Your task to perform on an android device: clear history in the chrome app Image 0: 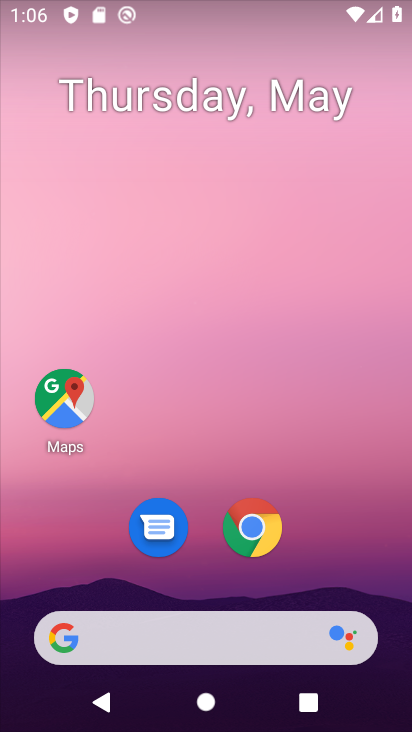
Step 0: press home button
Your task to perform on an android device: clear history in the chrome app Image 1: 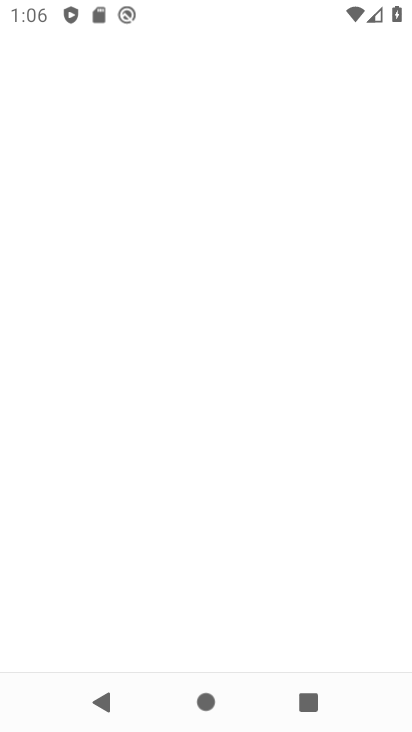
Step 1: drag from (390, 538) to (282, 133)
Your task to perform on an android device: clear history in the chrome app Image 2: 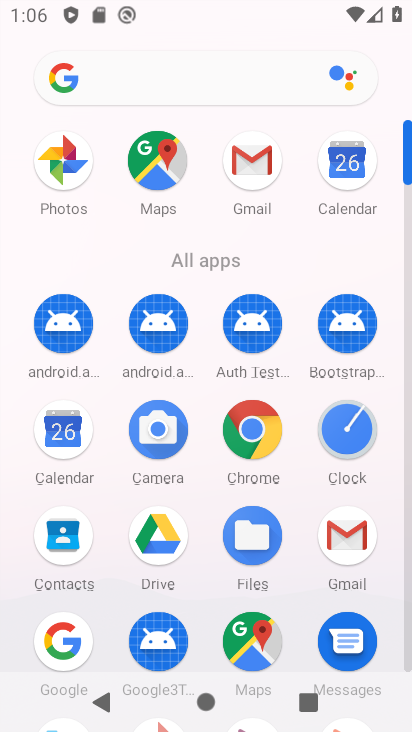
Step 2: click (261, 461)
Your task to perform on an android device: clear history in the chrome app Image 3: 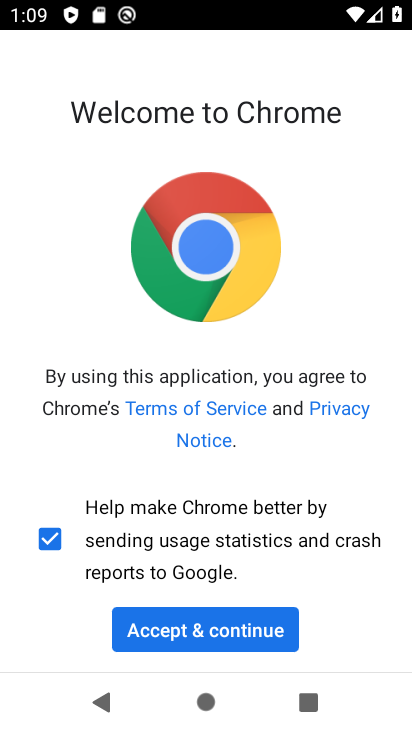
Step 3: click (234, 627)
Your task to perform on an android device: clear history in the chrome app Image 4: 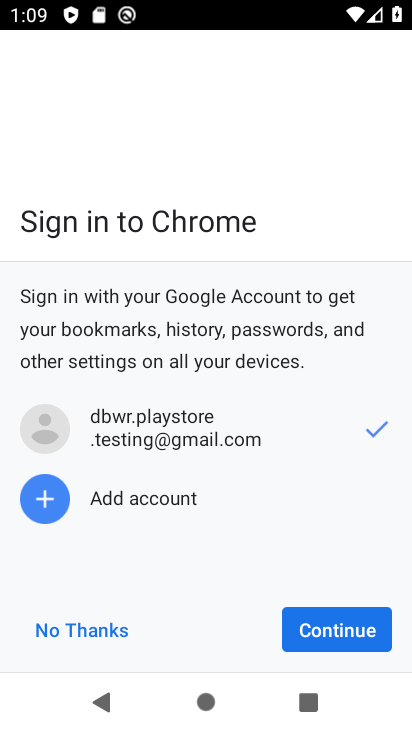
Step 4: click (363, 642)
Your task to perform on an android device: clear history in the chrome app Image 5: 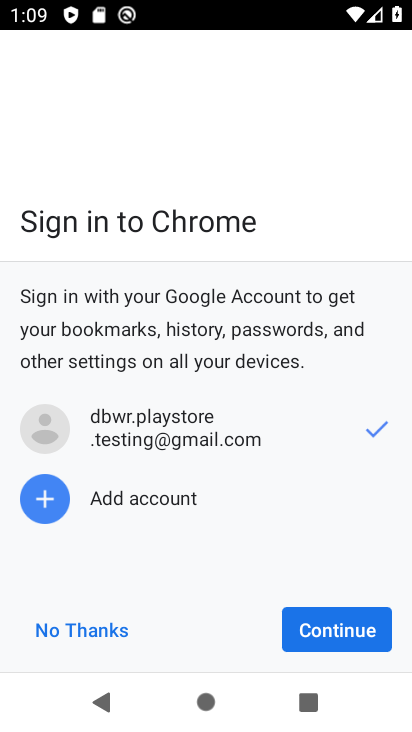
Step 5: click (363, 642)
Your task to perform on an android device: clear history in the chrome app Image 6: 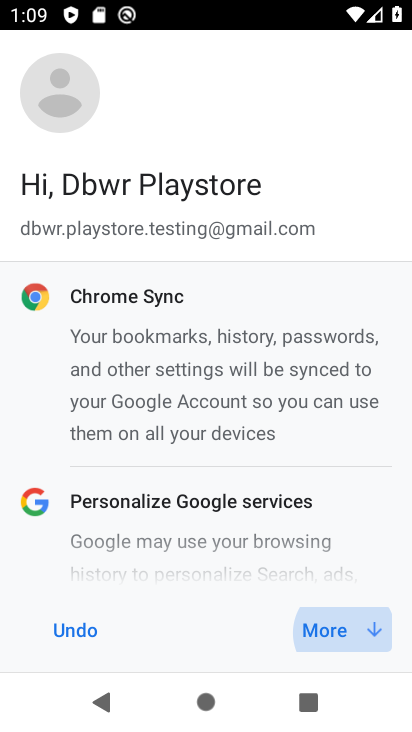
Step 6: click (363, 642)
Your task to perform on an android device: clear history in the chrome app Image 7: 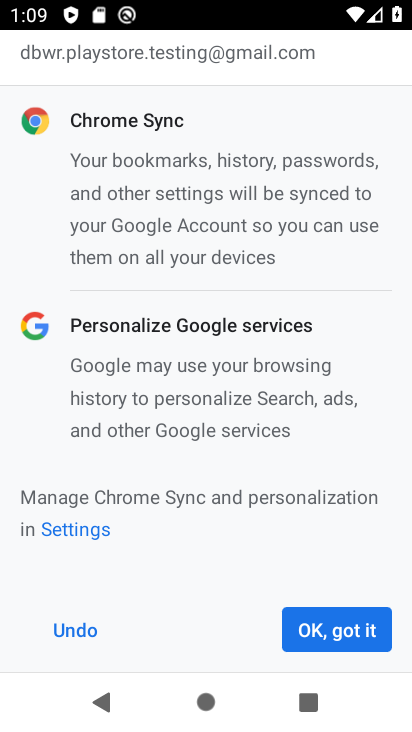
Step 7: click (353, 640)
Your task to perform on an android device: clear history in the chrome app Image 8: 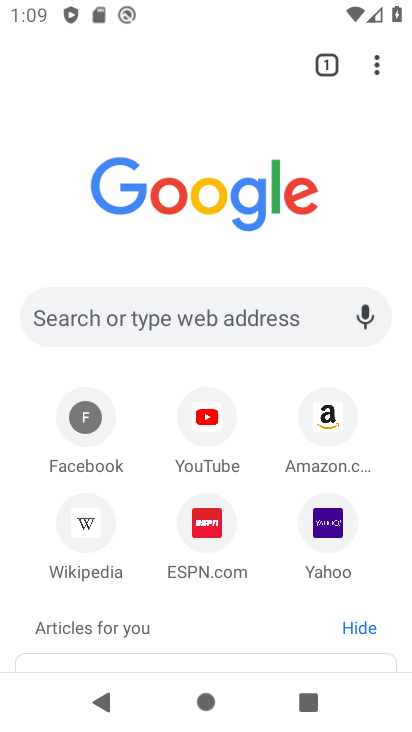
Step 8: drag from (371, 62) to (152, 562)
Your task to perform on an android device: clear history in the chrome app Image 9: 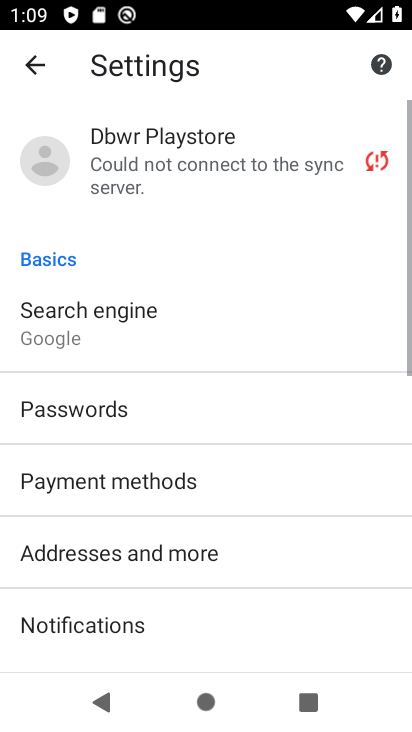
Step 9: drag from (173, 616) to (179, 233)
Your task to perform on an android device: clear history in the chrome app Image 10: 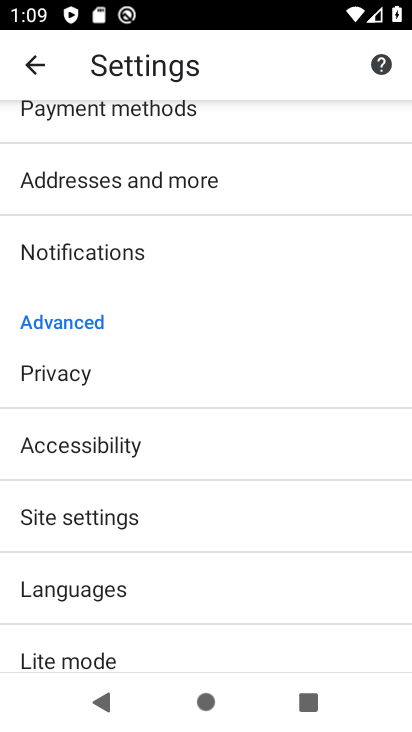
Step 10: click (12, 65)
Your task to perform on an android device: clear history in the chrome app Image 11: 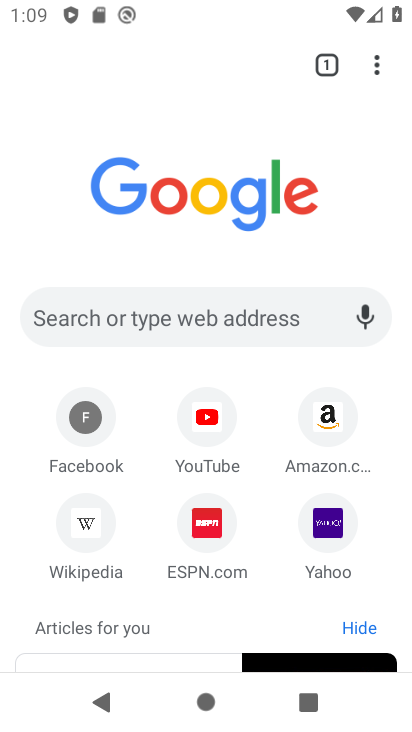
Step 11: task complete